Your task to perform on an android device: Go to eBay Image 0: 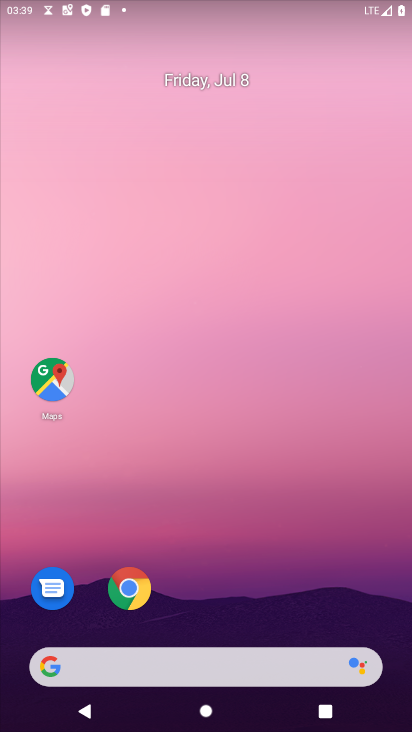
Step 0: click (211, 216)
Your task to perform on an android device: Go to eBay Image 1: 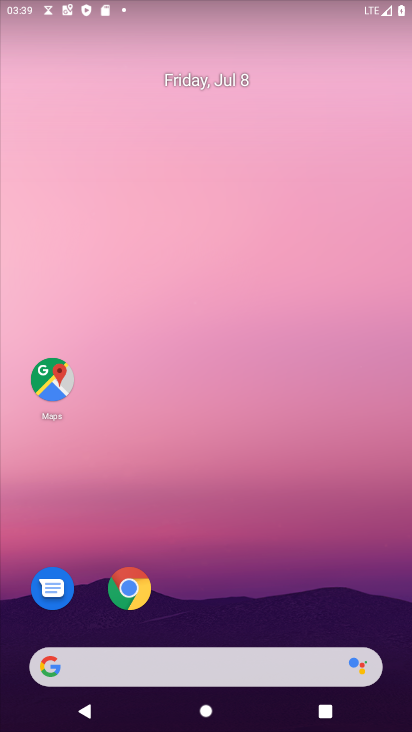
Step 1: drag from (204, 574) to (164, 125)
Your task to perform on an android device: Go to eBay Image 2: 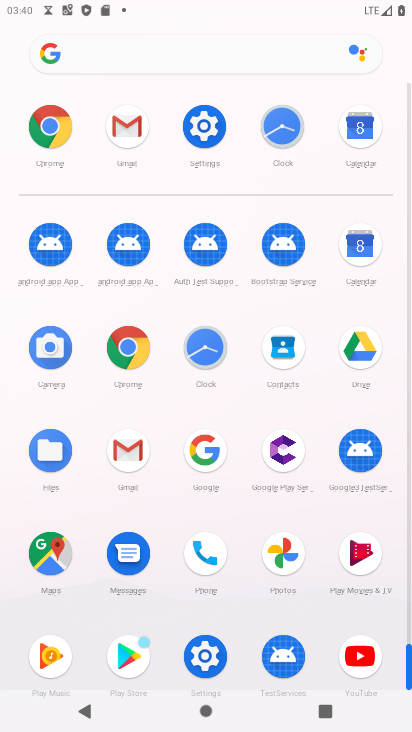
Step 2: click (131, 369)
Your task to perform on an android device: Go to eBay Image 3: 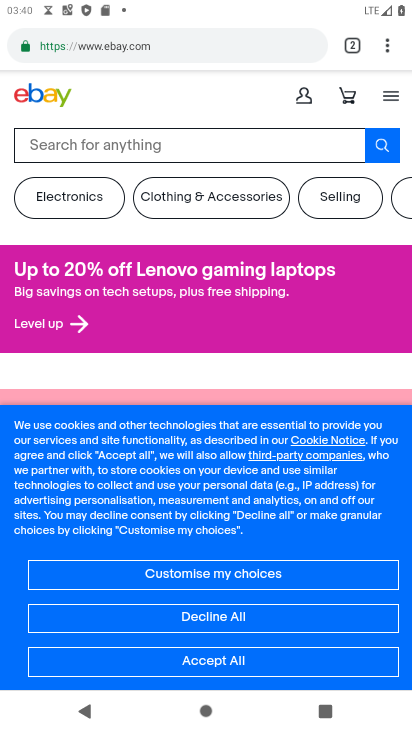
Step 3: task complete